Your task to perform on an android device: What's the weather going to be this weekend? Image 0: 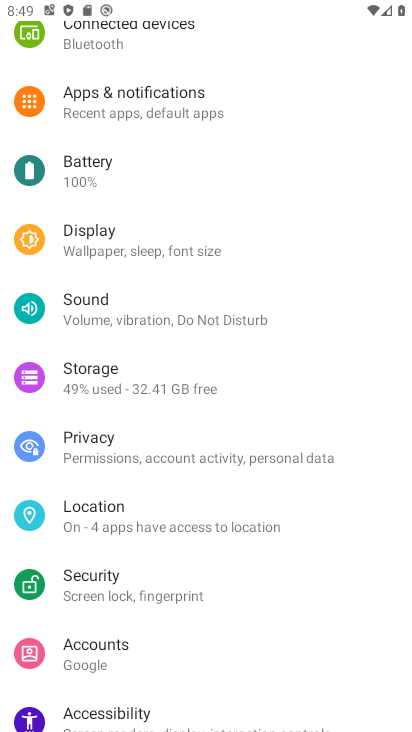
Step 0: press home button
Your task to perform on an android device: What's the weather going to be this weekend? Image 1: 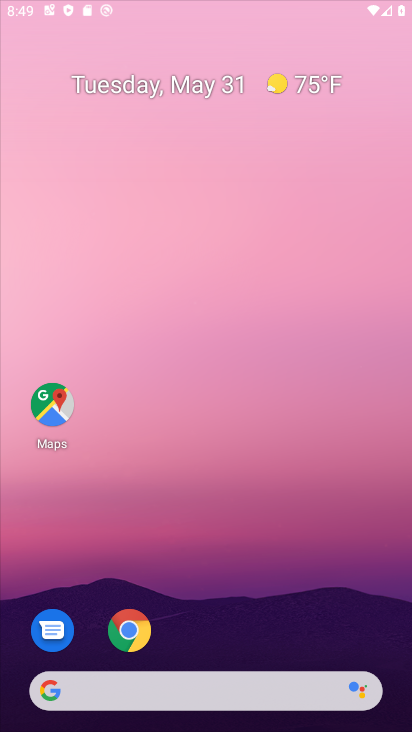
Step 1: drag from (174, 573) to (190, 182)
Your task to perform on an android device: What's the weather going to be this weekend? Image 2: 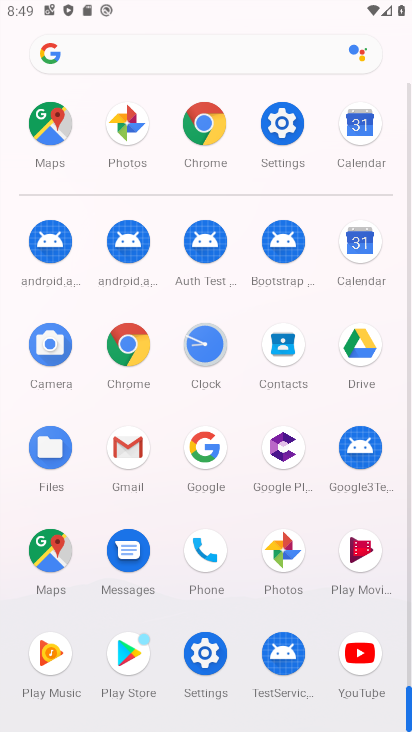
Step 2: click (204, 449)
Your task to perform on an android device: What's the weather going to be this weekend? Image 3: 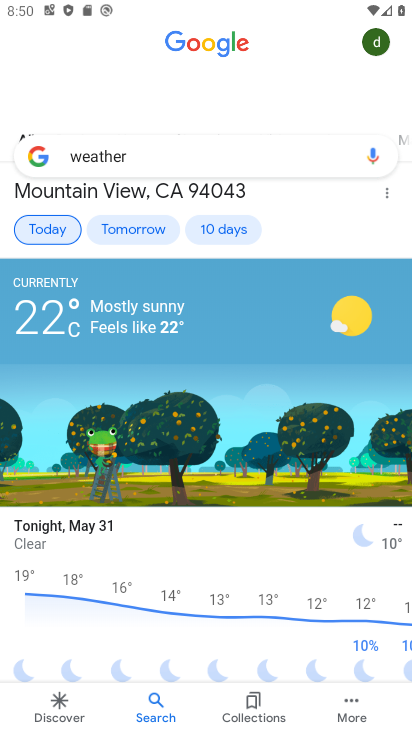
Step 3: click (209, 229)
Your task to perform on an android device: What's the weather going to be this weekend? Image 4: 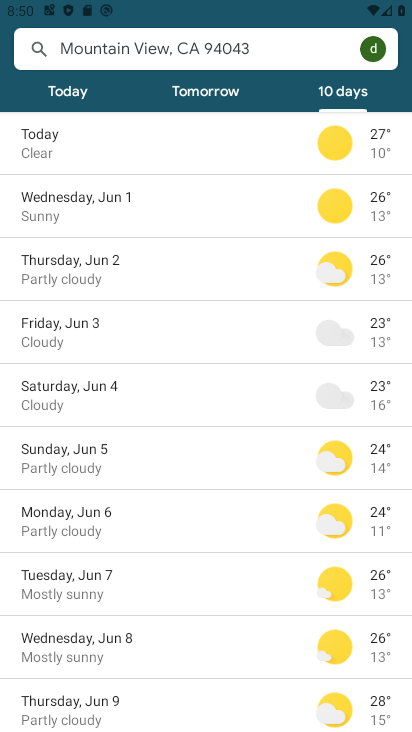
Step 4: task complete